Your task to perform on an android device: Is it going to rain tomorrow? Image 0: 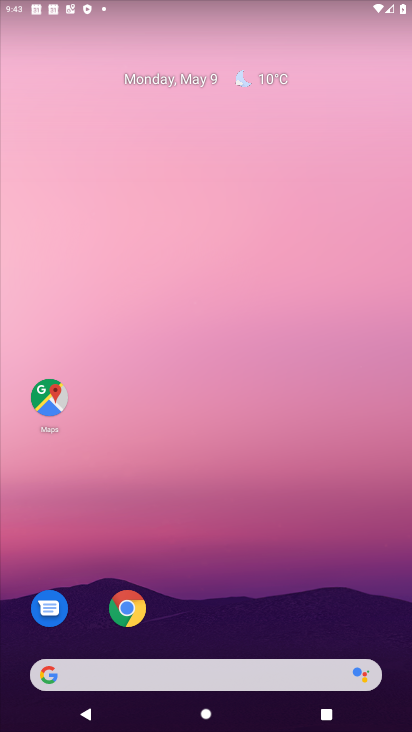
Step 0: drag from (261, 593) to (195, 1)
Your task to perform on an android device: Is it going to rain tomorrow? Image 1: 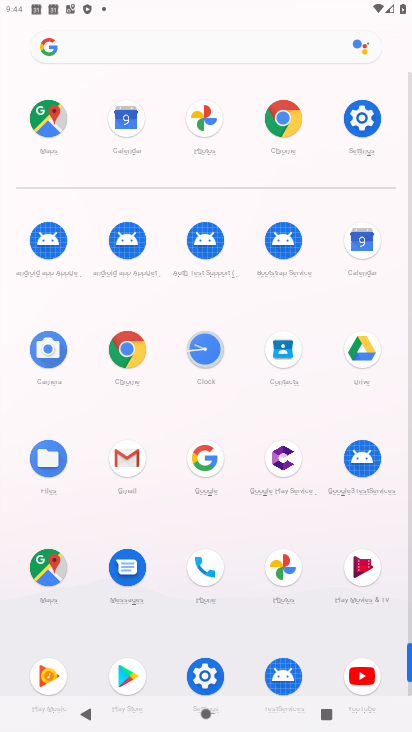
Step 1: press home button
Your task to perform on an android device: Is it going to rain tomorrow? Image 2: 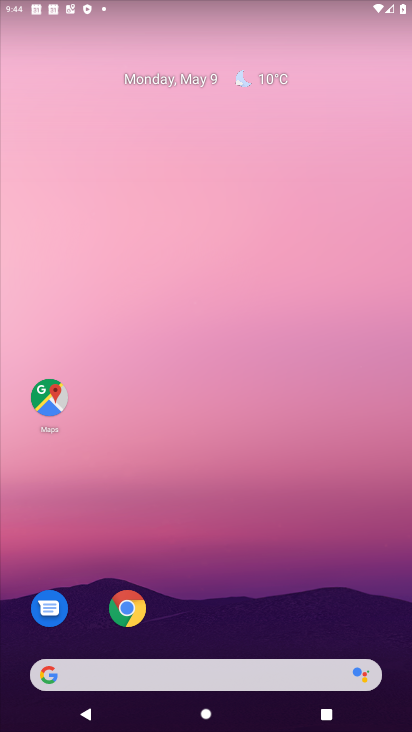
Step 2: click (273, 84)
Your task to perform on an android device: Is it going to rain tomorrow? Image 3: 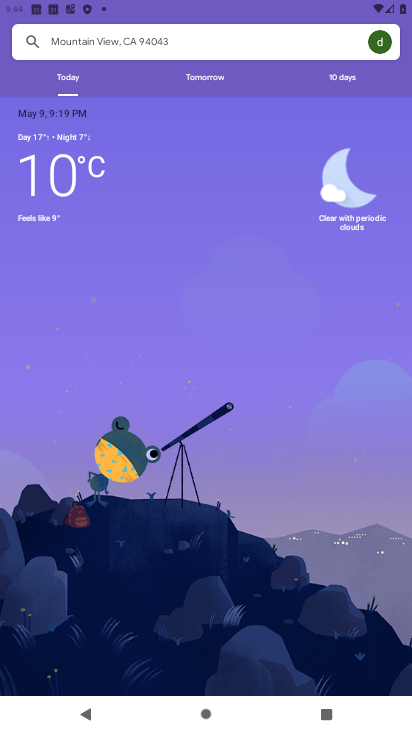
Step 3: click (197, 77)
Your task to perform on an android device: Is it going to rain tomorrow? Image 4: 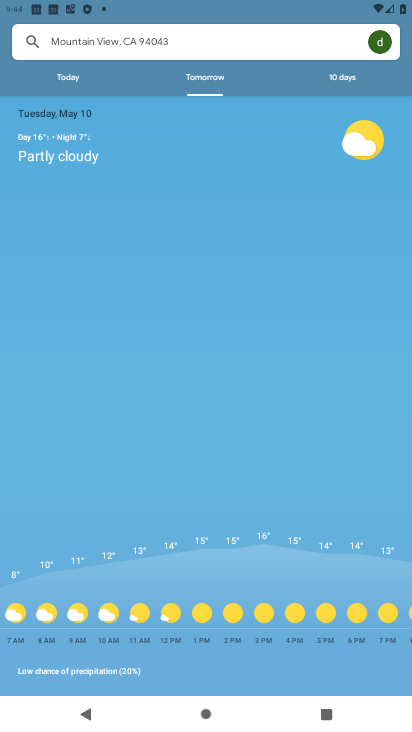
Step 4: task complete